Your task to perform on an android device: see tabs open on other devices in the chrome app Image 0: 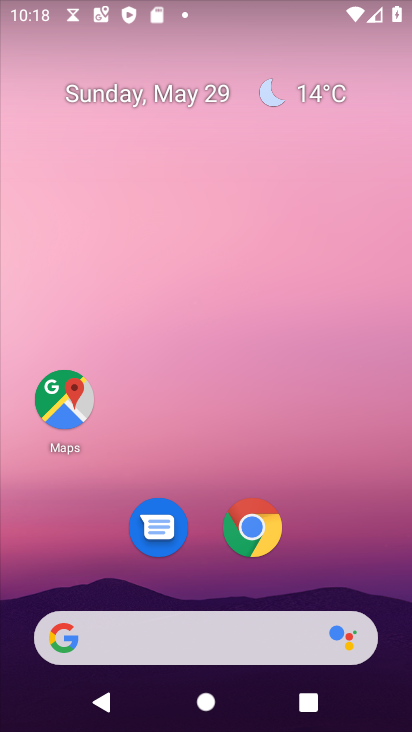
Step 0: press home button
Your task to perform on an android device: see tabs open on other devices in the chrome app Image 1: 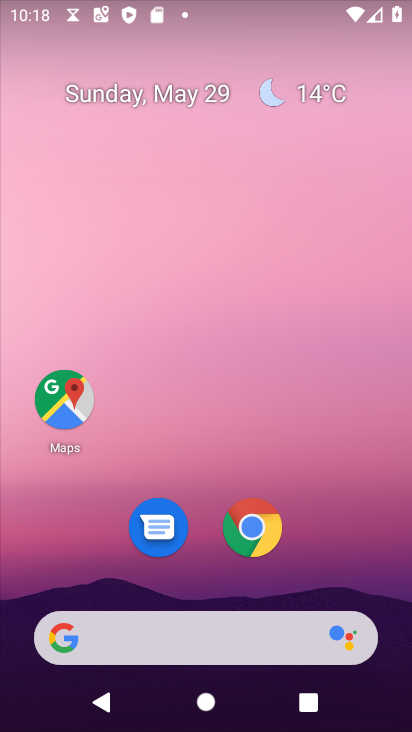
Step 1: click (247, 541)
Your task to perform on an android device: see tabs open on other devices in the chrome app Image 2: 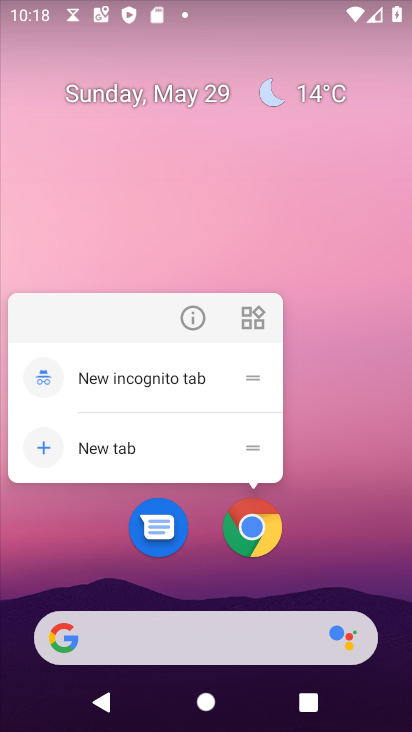
Step 2: click (246, 532)
Your task to perform on an android device: see tabs open on other devices in the chrome app Image 3: 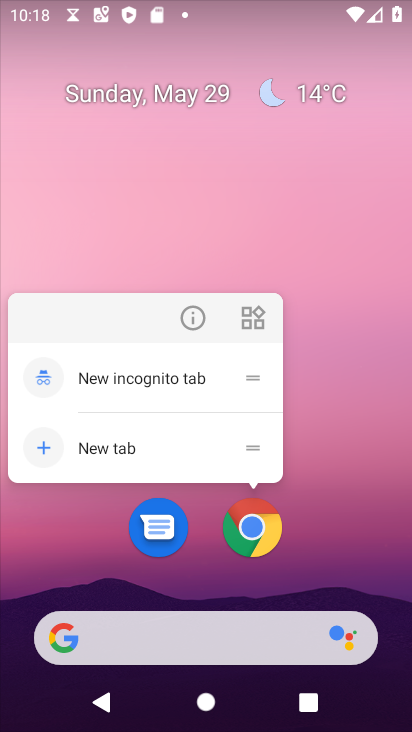
Step 3: click (246, 533)
Your task to perform on an android device: see tabs open on other devices in the chrome app Image 4: 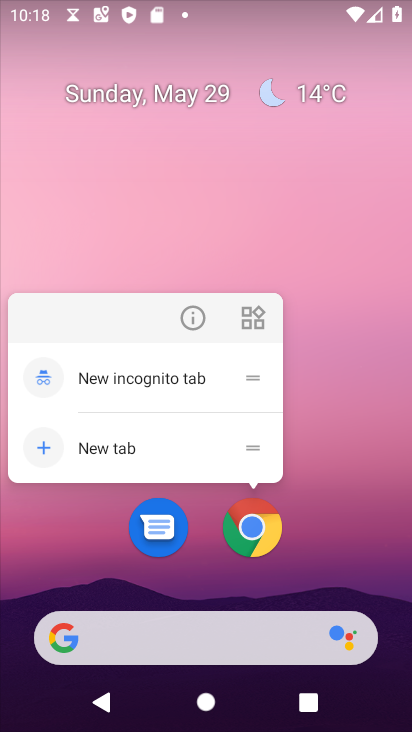
Step 4: click (246, 533)
Your task to perform on an android device: see tabs open on other devices in the chrome app Image 5: 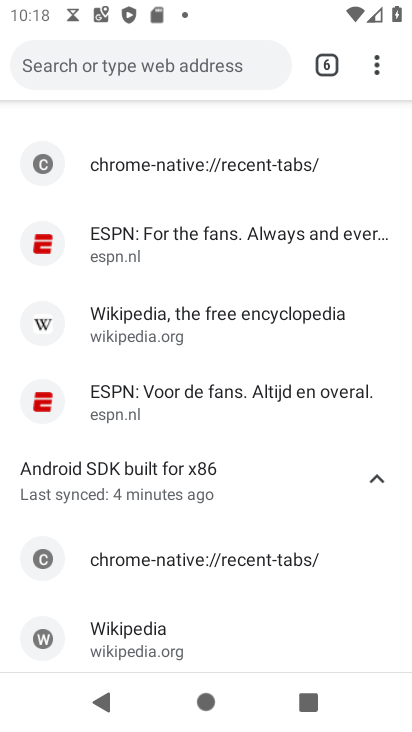
Step 5: task complete